Your task to perform on an android device: Do I have any events today? Image 0: 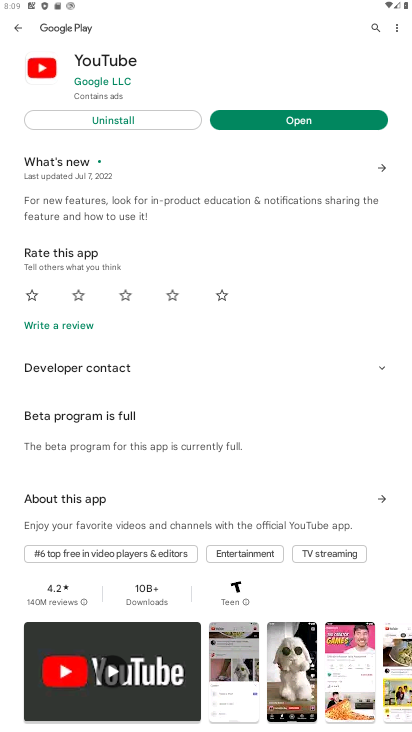
Step 0: press home button
Your task to perform on an android device: Do I have any events today? Image 1: 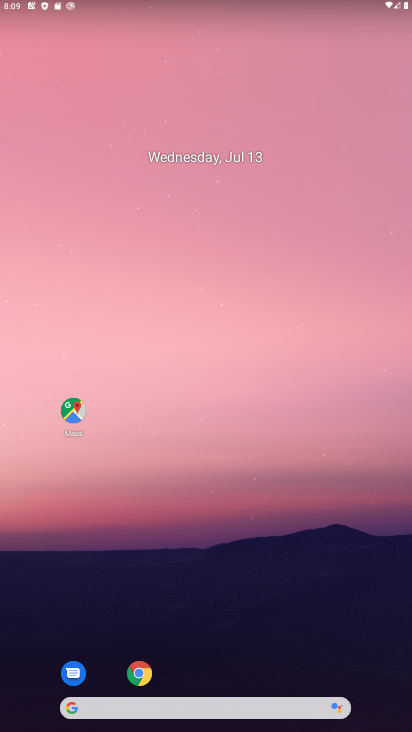
Step 1: drag from (316, 606) to (264, 144)
Your task to perform on an android device: Do I have any events today? Image 2: 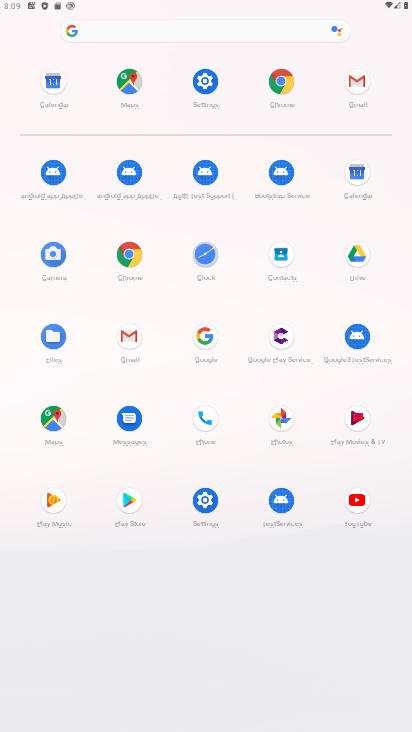
Step 2: click (361, 176)
Your task to perform on an android device: Do I have any events today? Image 3: 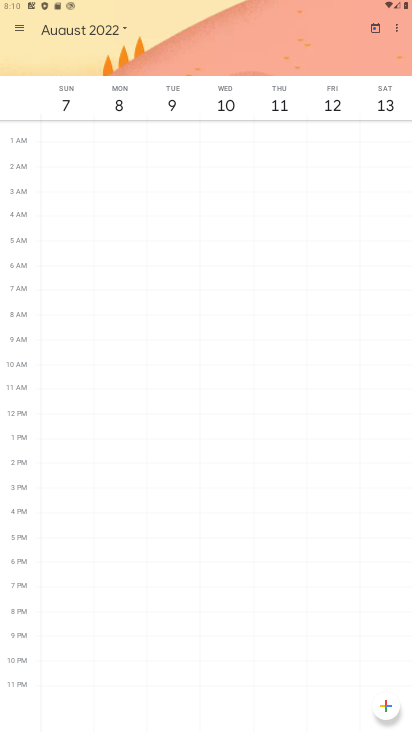
Step 3: click (89, 36)
Your task to perform on an android device: Do I have any events today? Image 4: 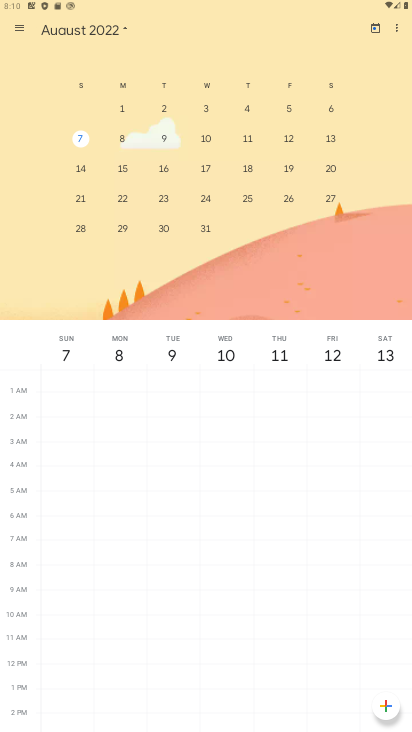
Step 4: drag from (62, 179) to (385, 175)
Your task to perform on an android device: Do I have any events today? Image 5: 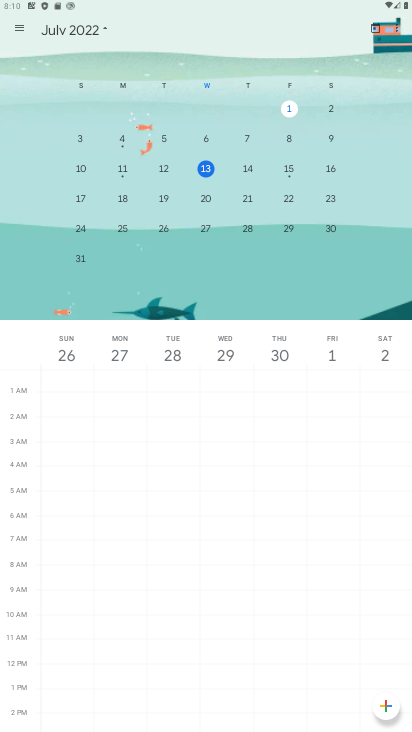
Step 5: click (204, 165)
Your task to perform on an android device: Do I have any events today? Image 6: 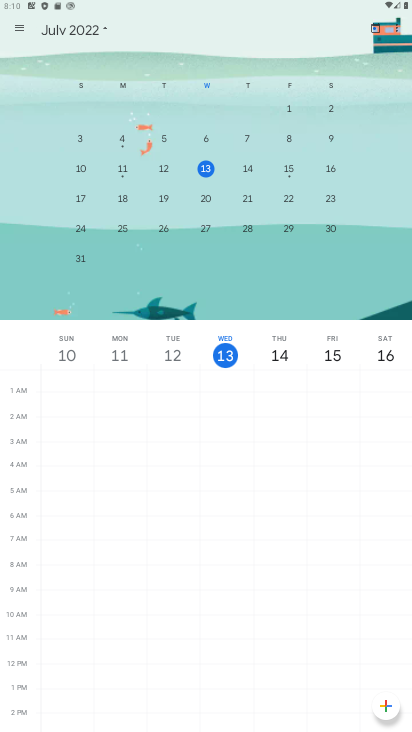
Step 6: click (226, 362)
Your task to perform on an android device: Do I have any events today? Image 7: 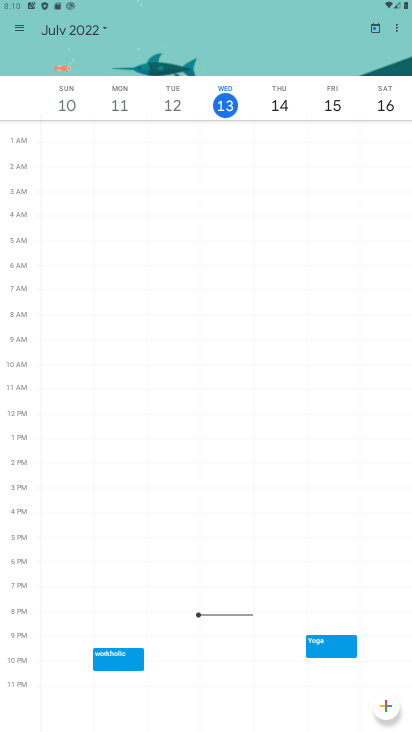
Step 7: task complete